Your task to perform on an android device: change notifications settings Image 0: 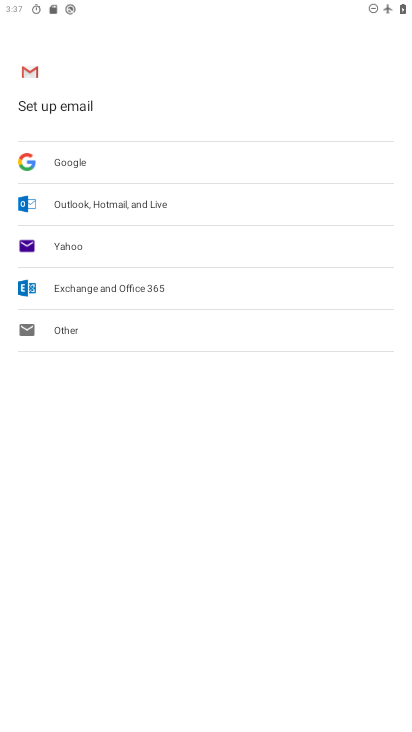
Step 0: press home button
Your task to perform on an android device: change notifications settings Image 1: 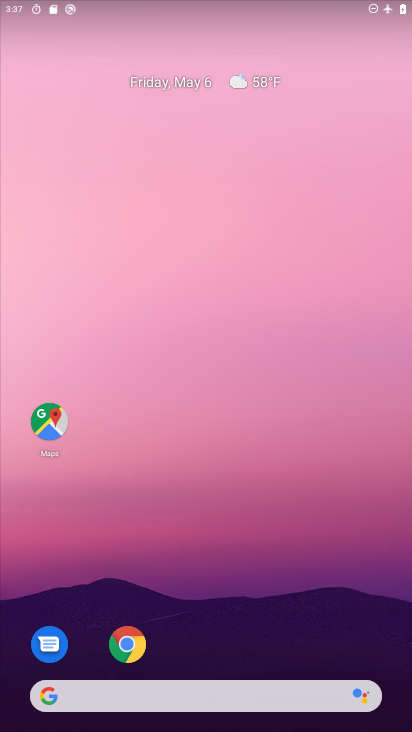
Step 1: drag from (202, 728) to (196, 228)
Your task to perform on an android device: change notifications settings Image 2: 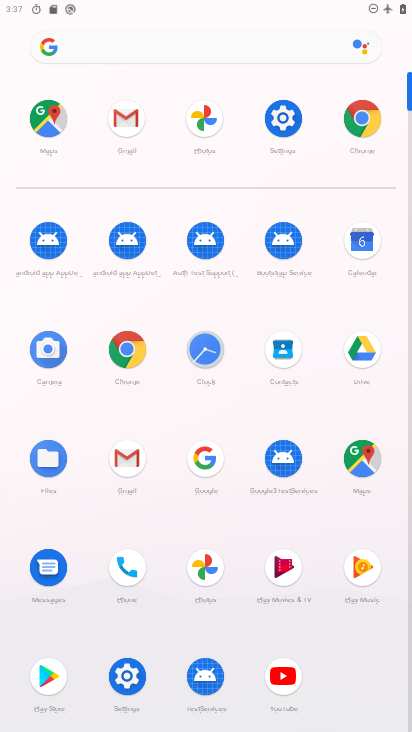
Step 2: click (284, 118)
Your task to perform on an android device: change notifications settings Image 3: 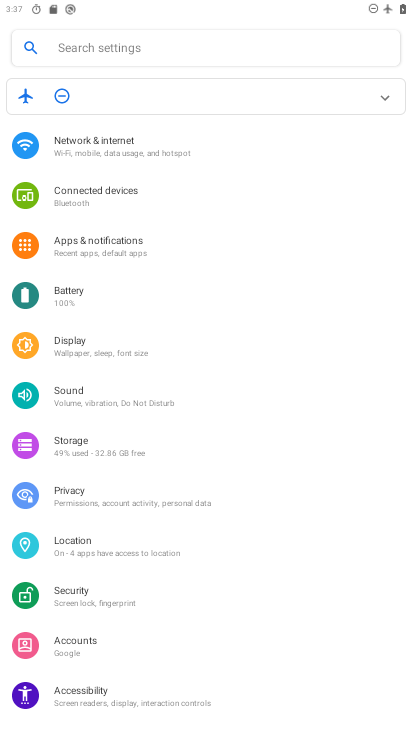
Step 3: click (113, 242)
Your task to perform on an android device: change notifications settings Image 4: 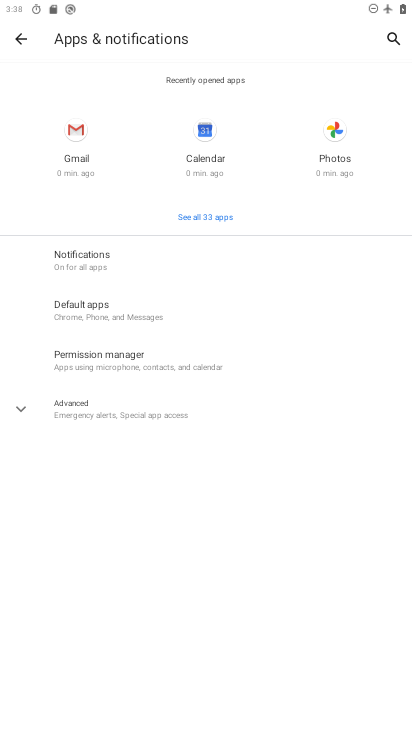
Step 4: click (80, 258)
Your task to perform on an android device: change notifications settings Image 5: 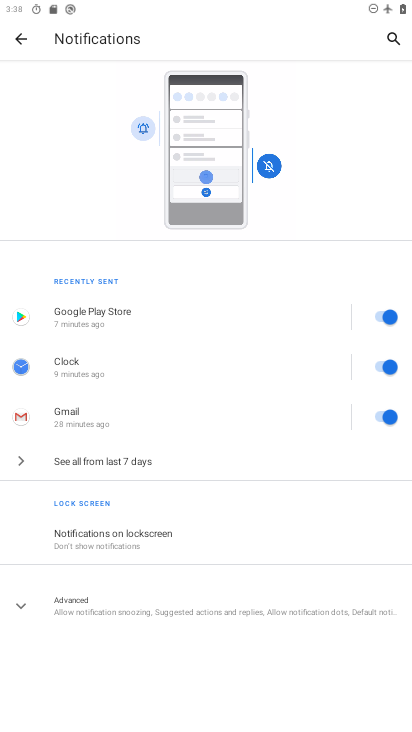
Step 5: drag from (125, 586) to (116, 364)
Your task to perform on an android device: change notifications settings Image 6: 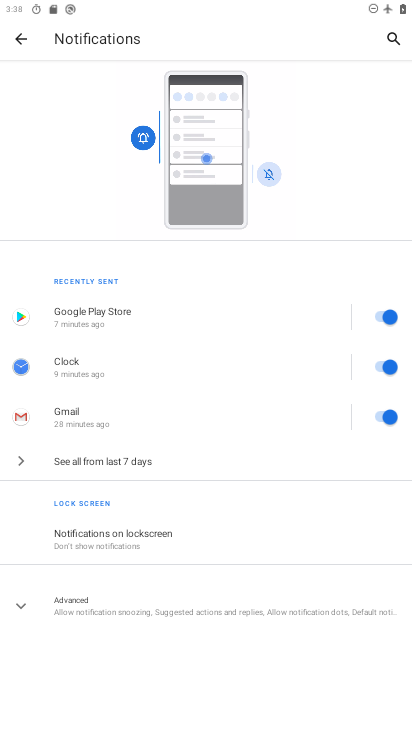
Step 6: click (130, 518)
Your task to perform on an android device: change notifications settings Image 7: 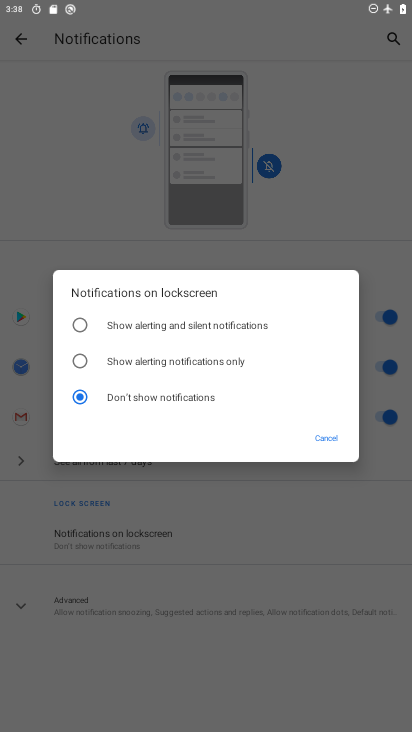
Step 7: click (82, 358)
Your task to perform on an android device: change notifications settings Image 8: 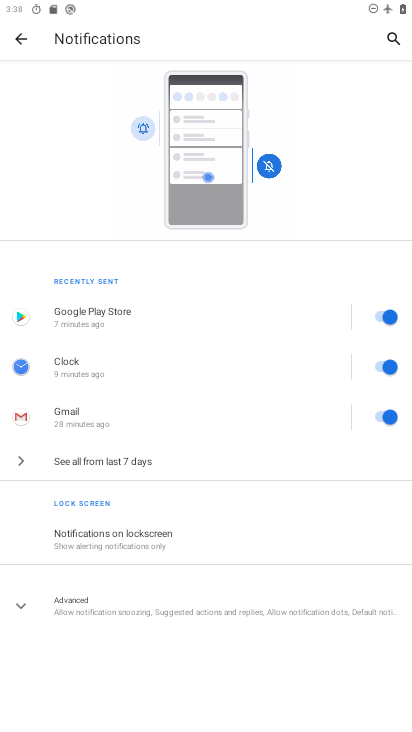
Step 8: task complete